Your task to perform on an android device: Open Amazon Image 0: 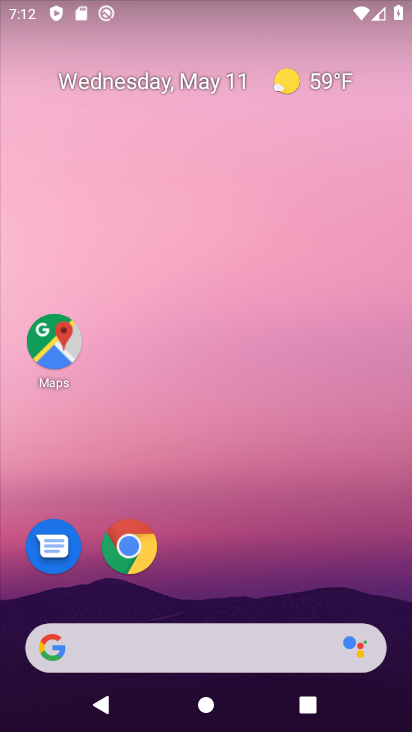
Step 0: click (138, 544)
Your task to perform on an android device: Open Amazon Image 1: 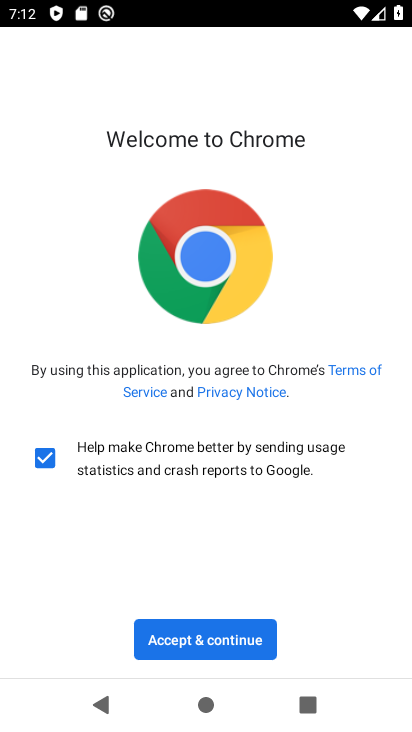
Step 1: click (251, 647)
Your task to perform on an android device: Open Amazon Image 2: 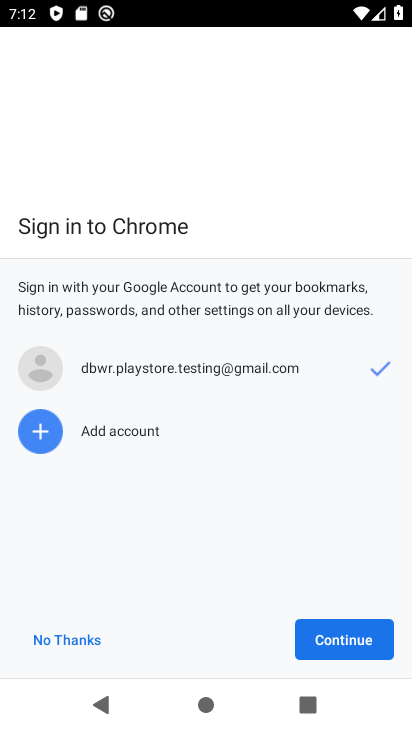
Step 2: click (367, 651)
Your task to perform on an android device: Open Amazon Image 3: 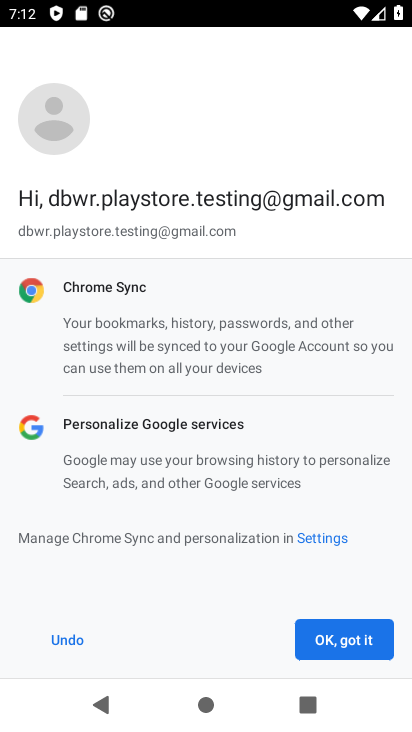
Step 3: click (367, 651)
Your task to perform on an android device: Open Amazon Image 4: 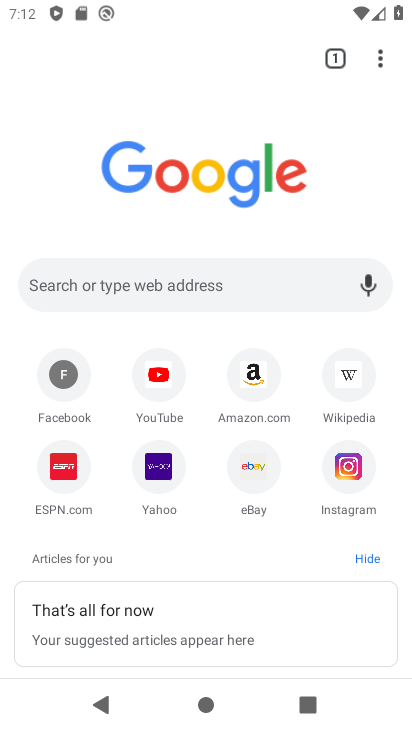
Step 4: click (258, 376)
Your task to perform on an android device: Open Amazon Image 5: 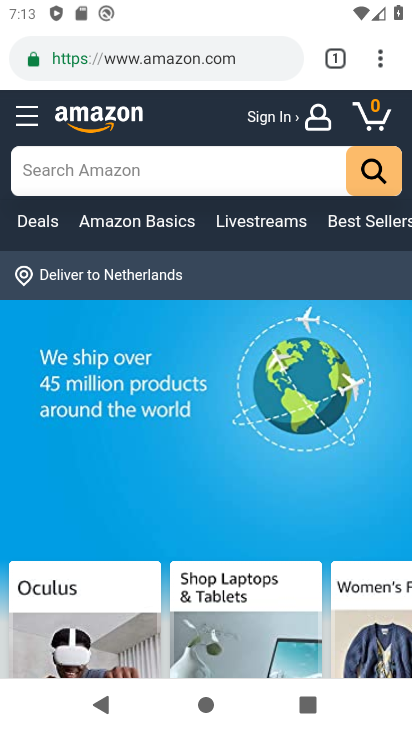
Step 5: task complete